Your task to perform on an android device: Search for vegetarian restaurants on Maps Image 0: 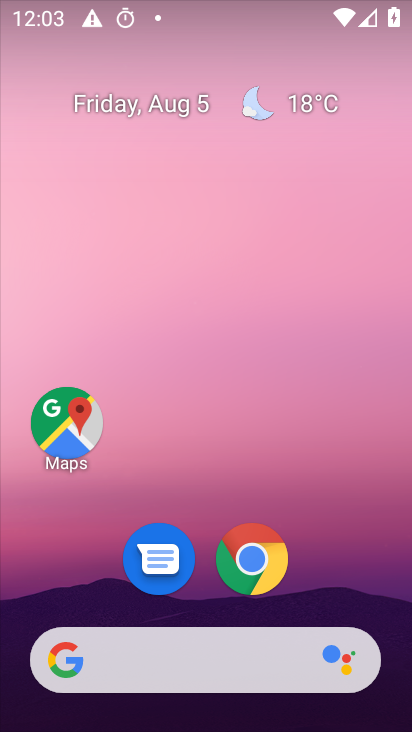
Step 0: click (257, 564)
Your task to perform on an android device: Search for vegetarian restaurants on Maps Image 1: 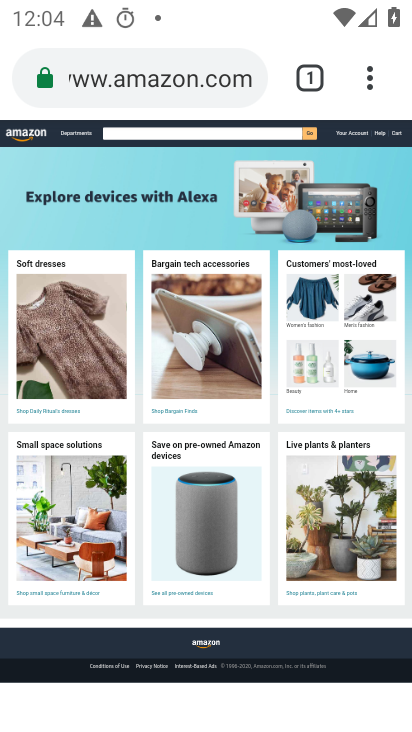
Step 1: press home button
Your task to perform on an android device: Search for vegetarian restaurants on Maps Image 2: 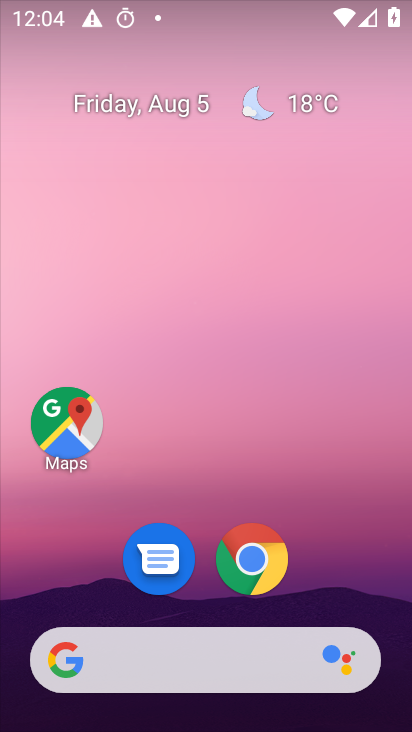
Step 2: click (74, 404)
Your task to perform on an android device: Search for vegetarian restaurants on Maps Image 3: 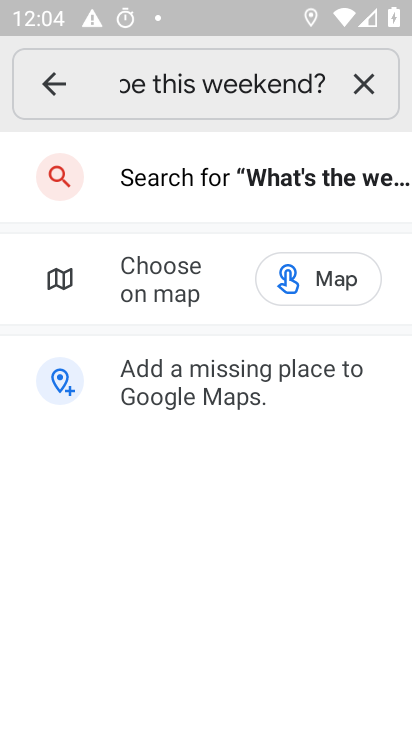
Step 3: click (361, 82)
Your task to perform on an android device: Search for vegetarian restaurants on Maps Image 4: 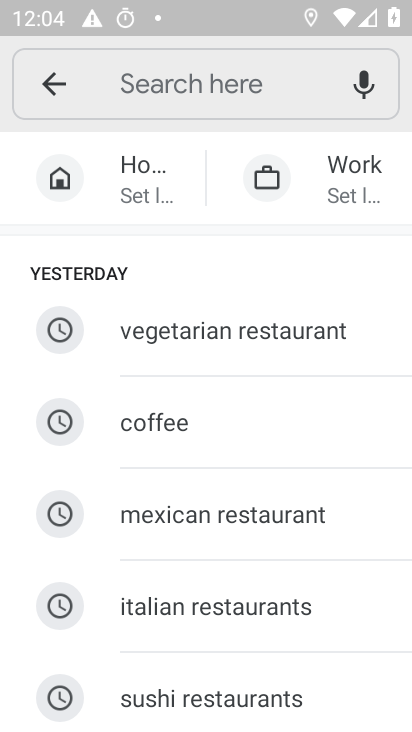
Step 4: click (225, 335)
Your task to perform on an android device: Search for vegetarian restaurants on Maps Image 5: 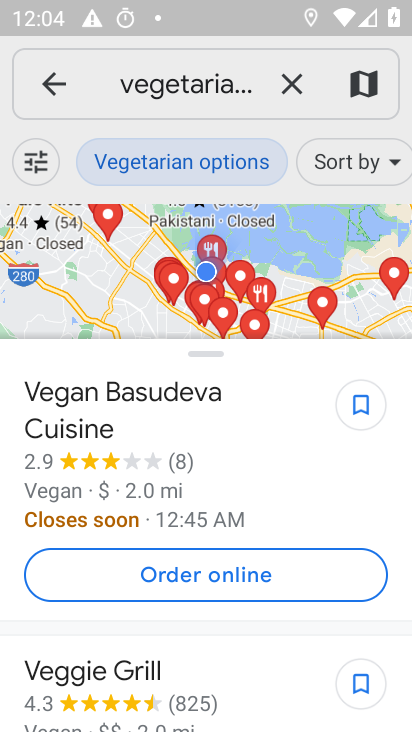
Step 5: task complete